Your task to perform on an android device: Go to CNN.com Image 0: 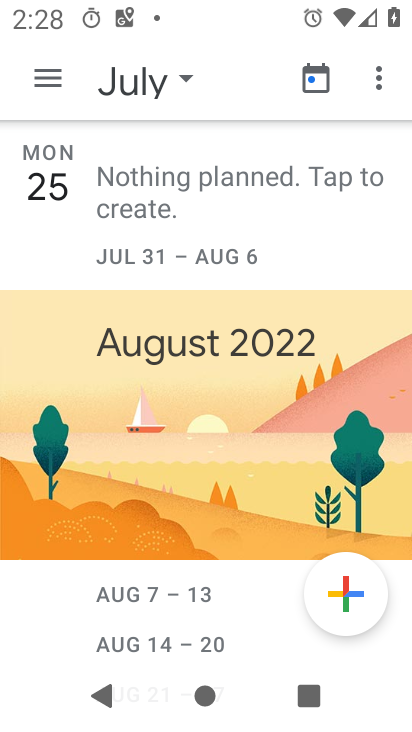
Step 0: press home button
Your task to perform on an android device: Go to CNN.com Image 1: 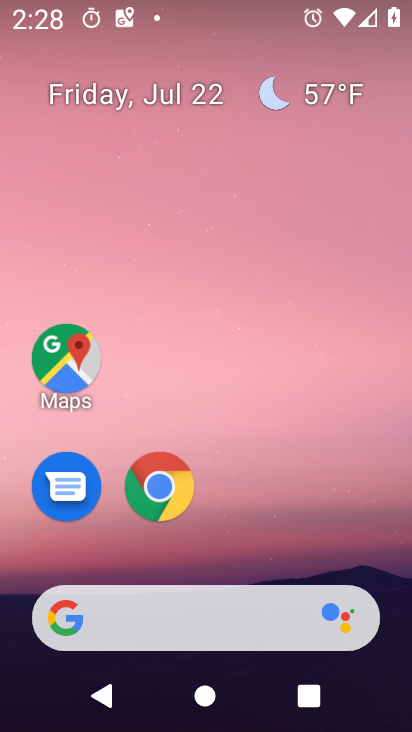
Step 1: drag from (380, 541) to (366, 130)
Your task to perform on an android device: Go to CNN.com Image 2: 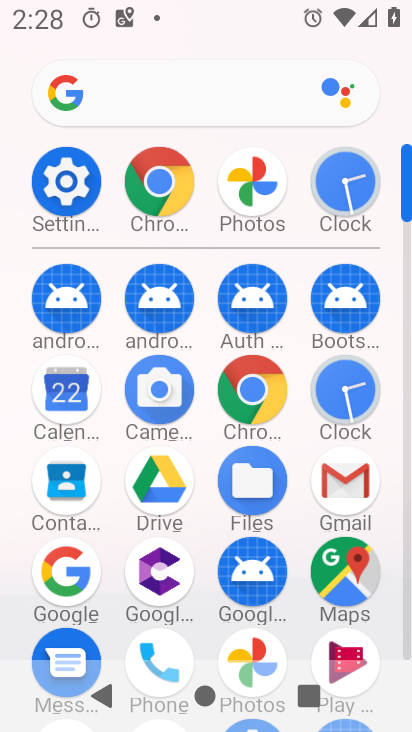
Step 2: click (259, 390)
Your task to perform on an android device: Go to CNN.com Image 3: 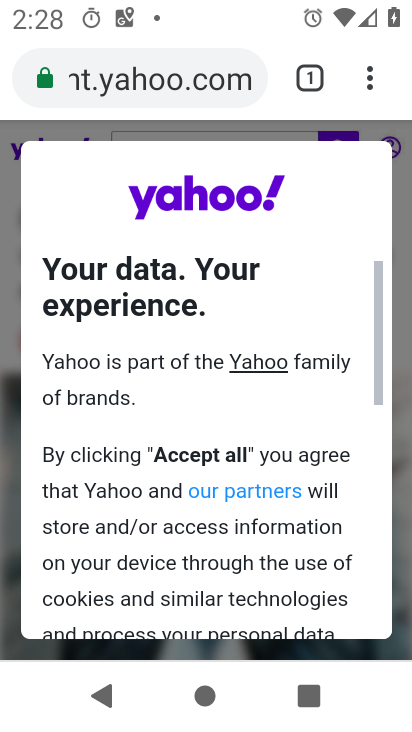
Step 3: click (183, 74)
Your task to perform on an android device: Go to CNN.com Image 4: 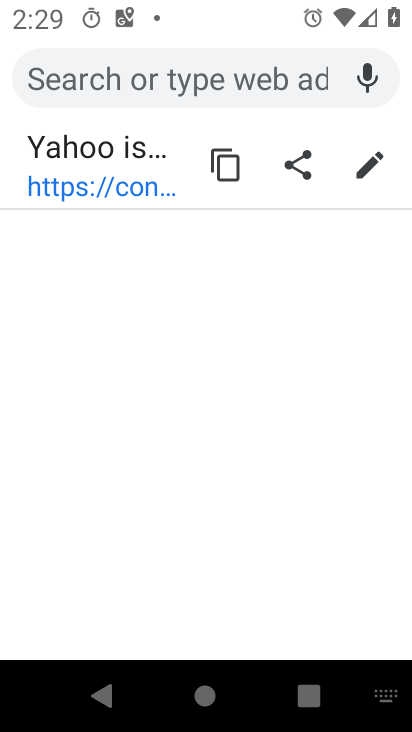
Step 4: type "xnn.xom"
Your task to perform on an android device: Go to CNN.com Image 5: 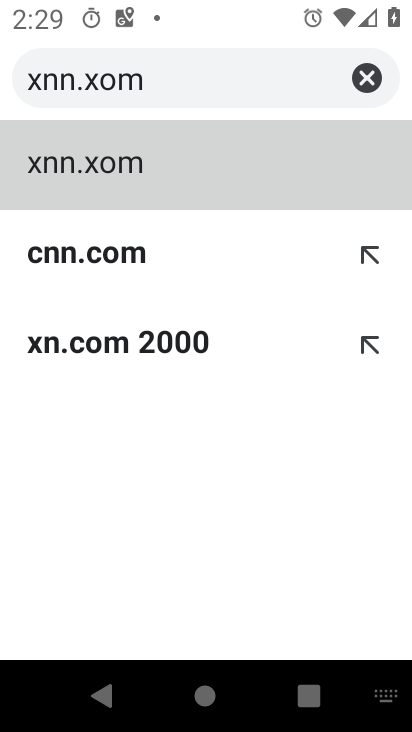
Step 5: click (253, 244)
Your task to perform on an android device: Go to CNN.com Image 6: 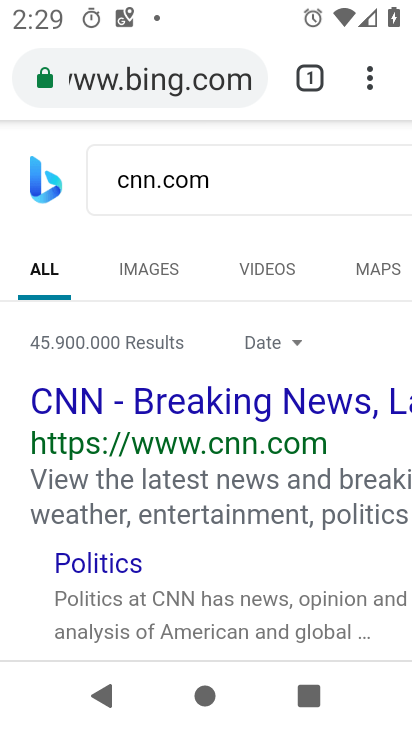
Step 6: task complete